Your task to perform on an android device: Open ESPN.com Image 0: 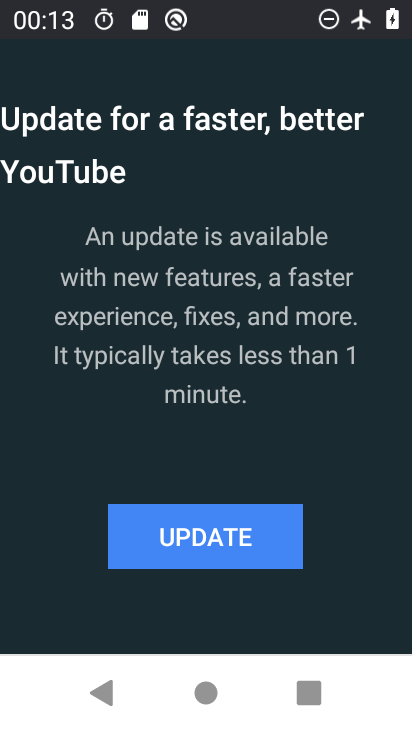
Step 0: press home button
Your task to perform on an android device: Open ESPN.com Image 1: 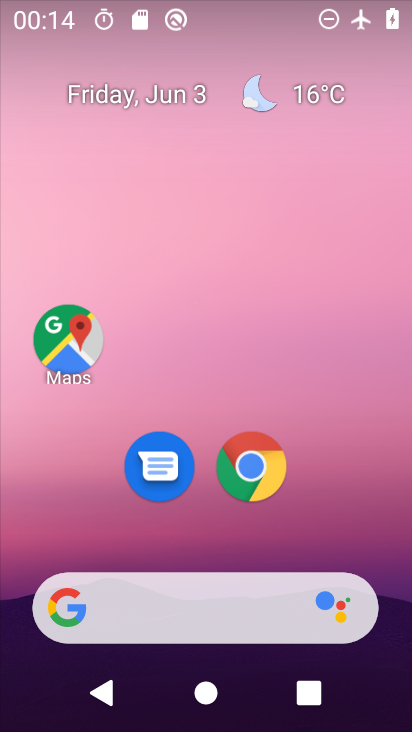
Step 1: click (248, 461)
Your task to perform on an android device: Open ESPN.com Image 2: 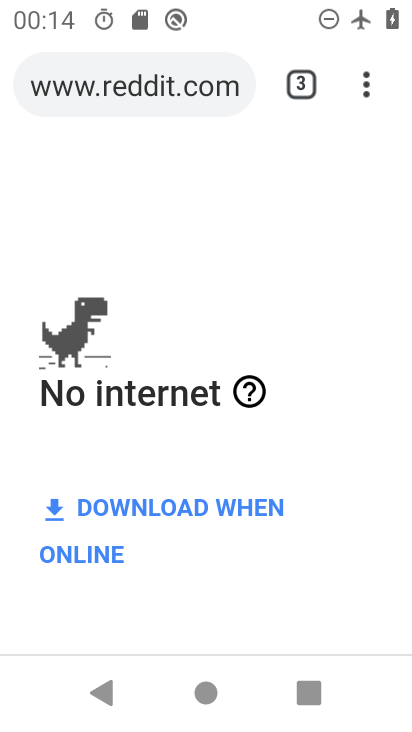
Step 2: task complete